Your task to perform on an android device: Open notification settings Image 0: 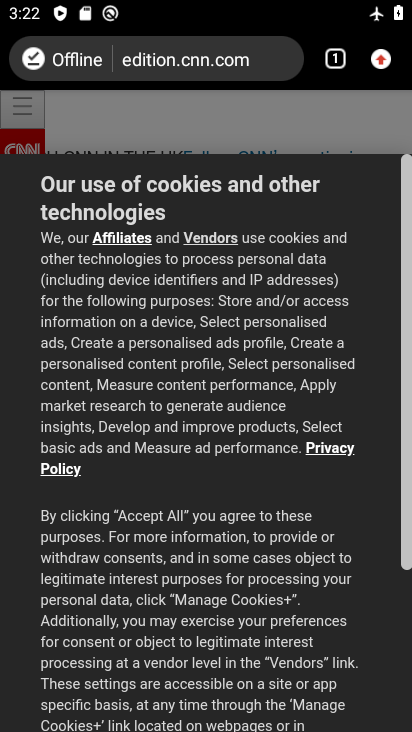
Step 0: press home button
Your task to perform on an android device: Open notification settings Image 1: 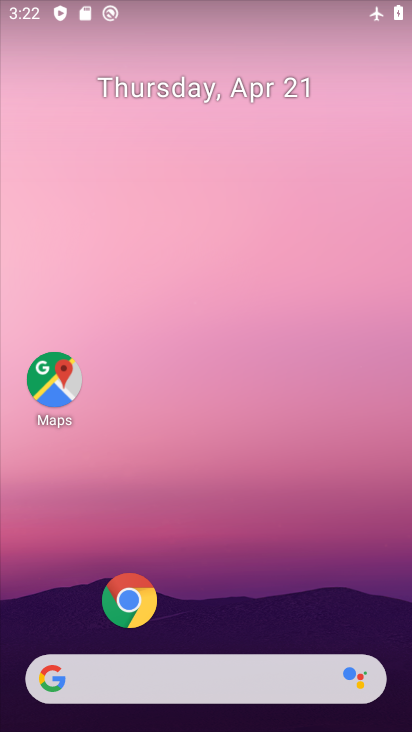
Step 1: drag from (263, 549) to (268, 326)
Your task to perform on an android device: Open notification settings Image 2: 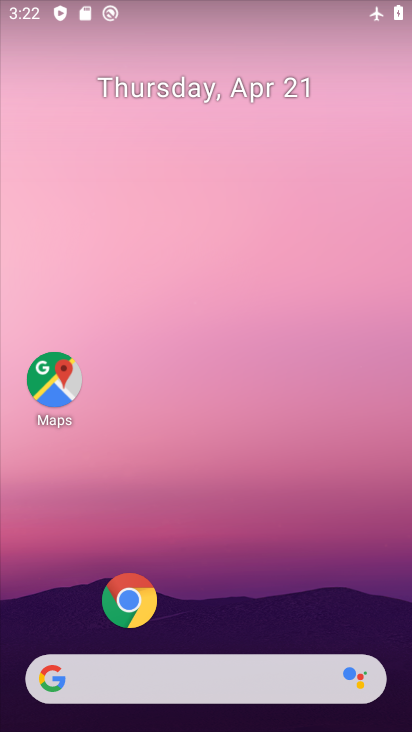
Step 2: drag from (218, 557) to (268, 273)
Your task to perform on an android device: Open notification settings Image 3: 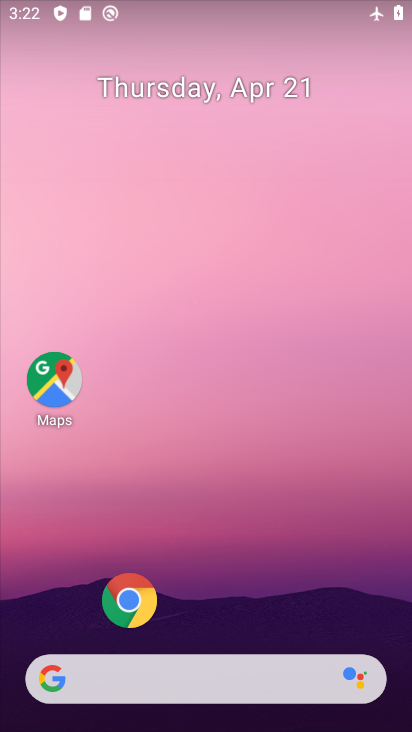
Step 3: drag from (233, 533) to (271, 244)
Your task to perform on an android device: Open notification settings Image 4: 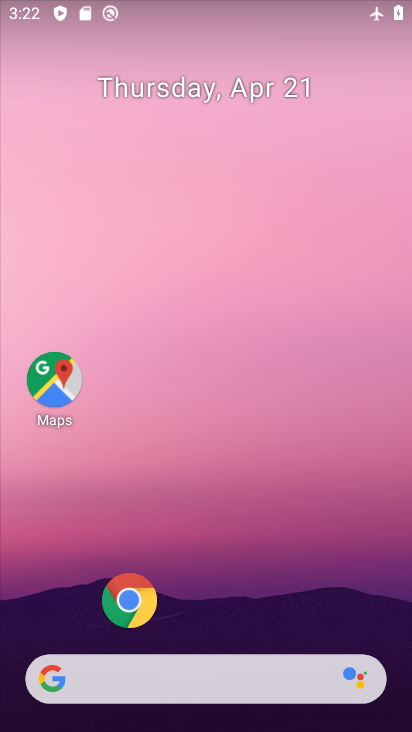
Step 4: drag from (209, 630) to (290, 234)
Your task to perform on an android device: Open notification settings Image 5: 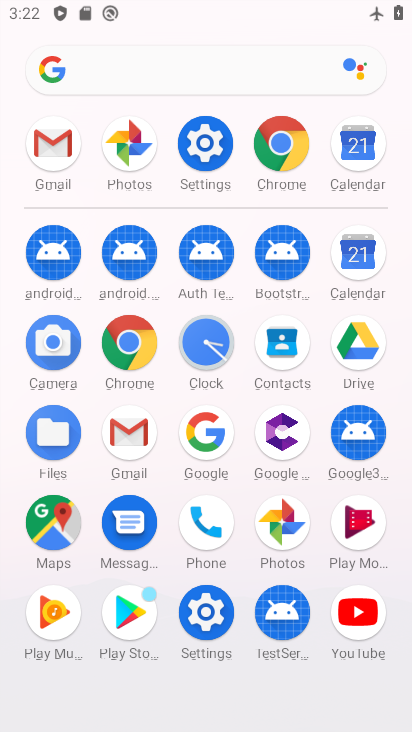
Step 5: click (205, 150)
Your task to perform on an android device: Open notification settings Image 6: 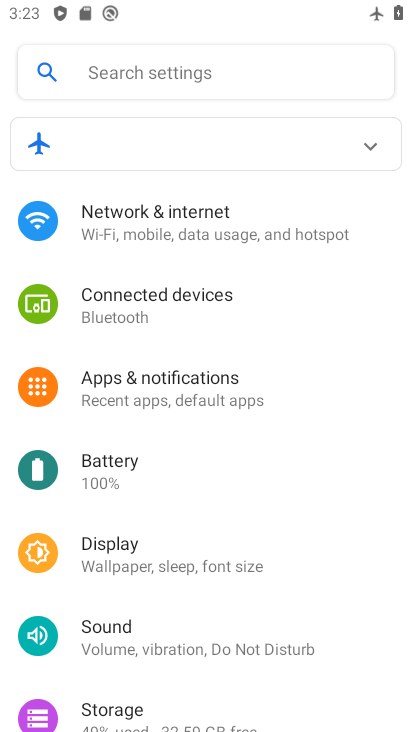
Step 6: click (146, 400)
Your task to perform on an android device: Open notification settings Image 7: 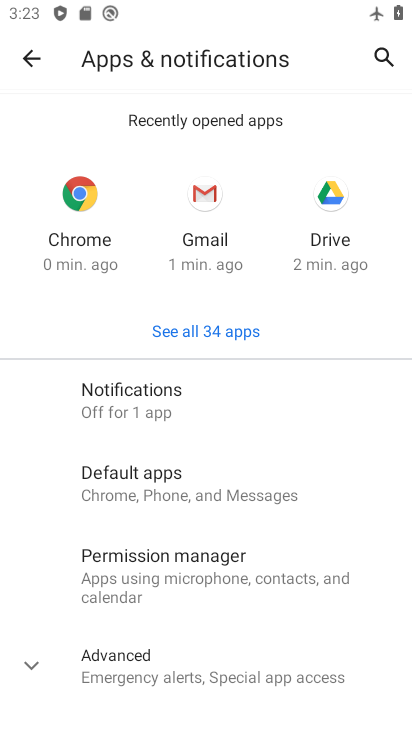
Step 7: click (161, 414)
Your task to perform on an android device: Open notification settings Image 8: 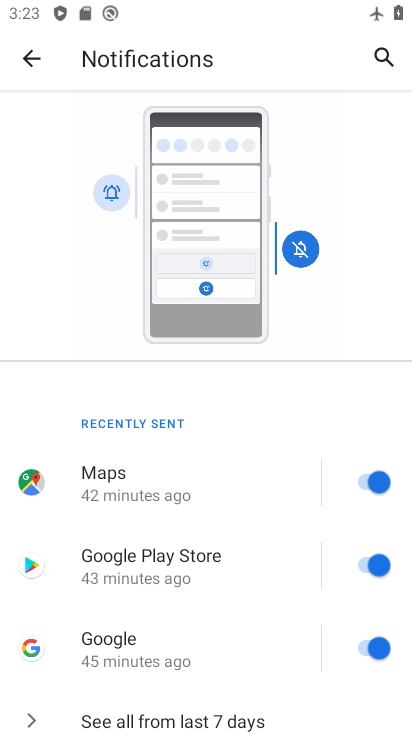
Step 8: task complete